Your task to perform on an android device: Clear all items from cart on amazon. Search for "bose soundsport free" on amazon, select the first entry, add it to the cart, then select checkout. Image 0: 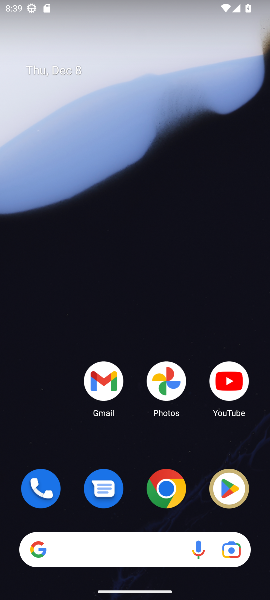
Step 0: drag from (130, 535) to (129, 70)
Your task to perform on an android device: Clear all items from cart on amazon. Search for "bose soundsport free" on amazon, select the first entry, add it to the cart, then select checkout. Image 1: 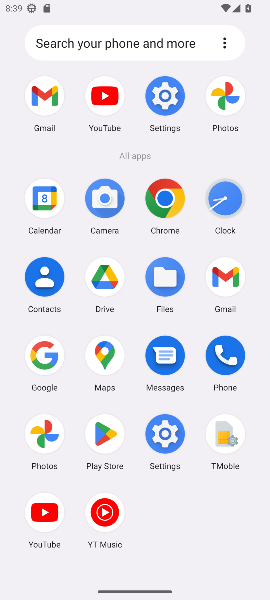
Step 1: click (46, 353)
Your task to perform on an android device: Clear all items from cart on amazon. Search for "bose soundsport free" on amazon, select the first entry, add it to the cart, then select checkout. Image 2: 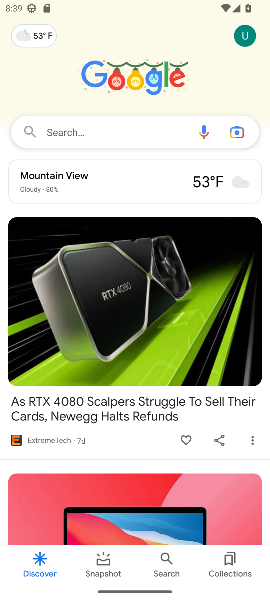
Step 2: click (61, 132)
Your task to perform on an android device: Clear all items from cart on amazon. Search for "bose soundsport free" on amazon, select the first entry, add it to the cart, then select checkout. Image 3: 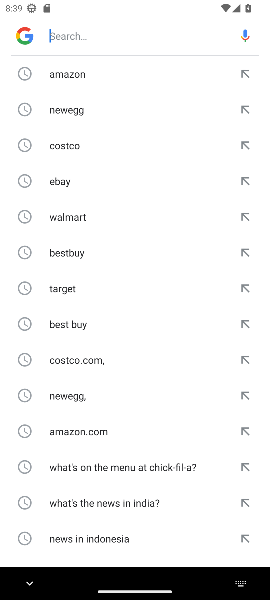
Step 3: click (70, 71)
Your task to perform on an android device: Clear all items from cart on amazon. Search for "bose soundsport free" on amazon, select the first entry, add it to the cart, then select checkout. Image 4: 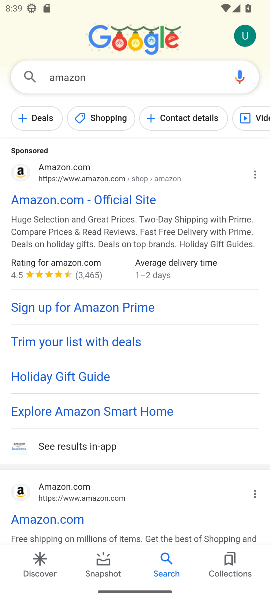
Step 4: click (56, 194)
Your task to perform on an android device: Clear all items from cart on amazon. Search for "bose soundsport free" on amazon, select the first entry, add it to the cart, then select checkout. Image 5: 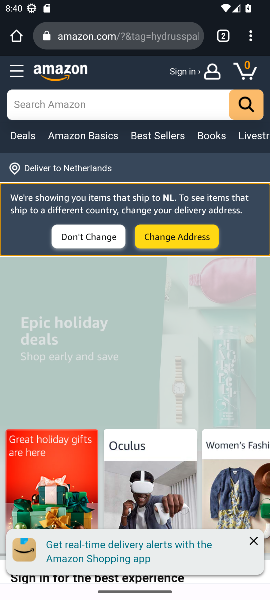
Step 5: click (85, 101)
Your task to perform on an android device: Clear all items from cart on amazon. Search for "bose soundsport free" on amazon, select the first entry, add it to the cart, then select checkout. Image 6: 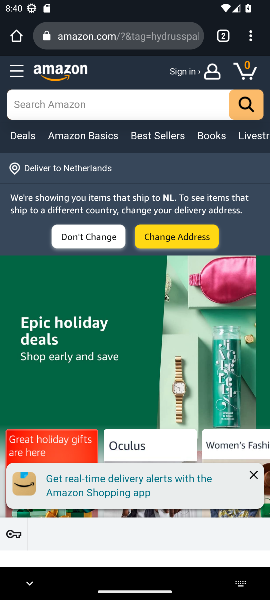
Step 6: type "bose soundsport free"
Your task to perform on an android device: Clear all items from cart on amazon. Search for "bose soundsport free" on amazon, select the first entry, add it to the cart, then select checkout. Image 7: 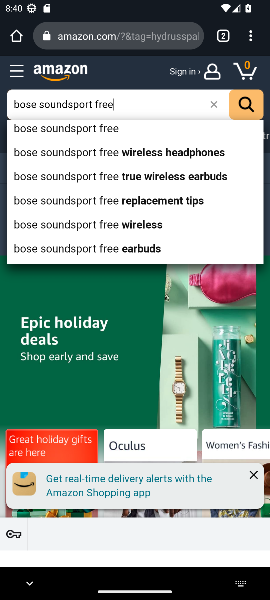
Step 7: click (79, 122)
Your task to perform on an android device: Clear all items from cart on amazon. Search for "bose soundsport free" on amazon, select the first entry, add it to the cart, then select checkout. Image 8: 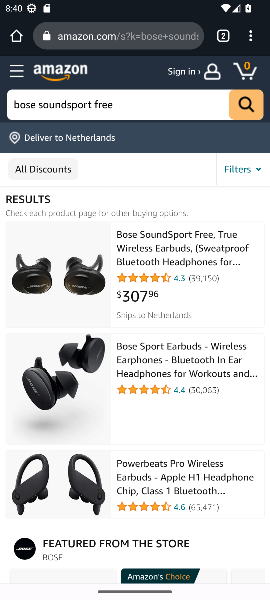
Step 8: click (148, 242)
Your task to perform on an android device: Clear all items from cart on amazon. Search for "bose soundsport free" on amazon, select the first entry, add it to the cart, then select checkout. Image 9: 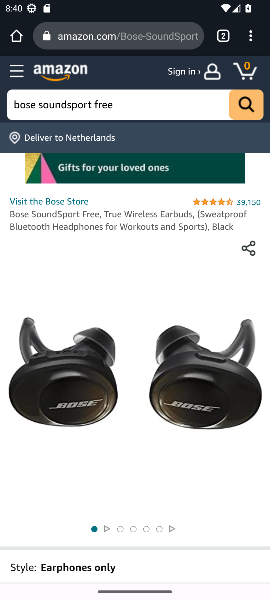
Step 9: drag from (137, 483) to (128, 171)
Your task to perform on an android device: Clear all items from cart on amazon. Search for "bose soundsport free" on amazon, select the first entry, add it to the cart, then select checkout. Image 10: 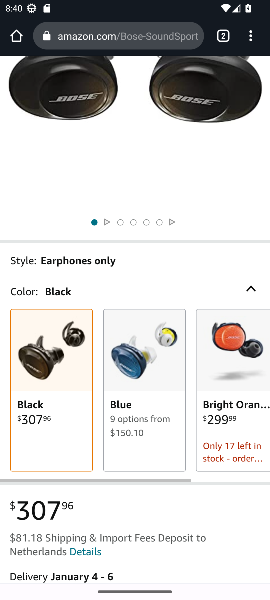
Step 10: drag from (147, 440) to (136, 196)
Your task to perform on an android device: Clear all items from cart on amazon. Search for "bose soundsport free" on amazon, select the first entry, add it to the cart, then select checkout. Image 11: 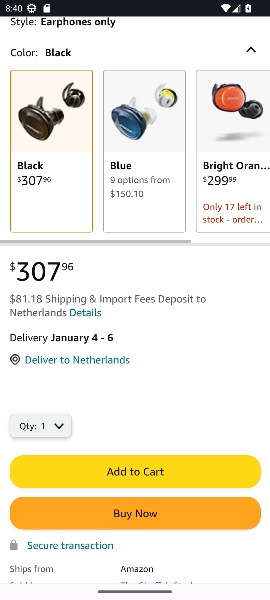
Step 11: click (152, 463)
Your task to perform on an android device: Clear all items from cart on amazon. Search for "bose soundsport free" on amazon, select the first entry, add it to the cart, then select checkout. Image 12: 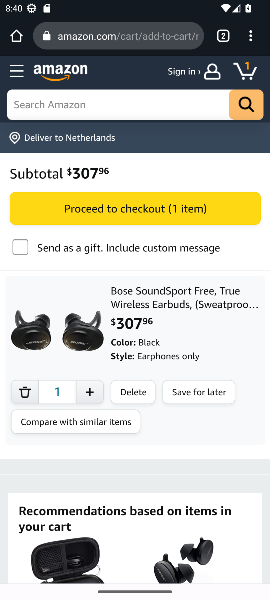
Step 12: click (142, 207)
Your task to perform on an android device: Clear all items from cart on amazon. Search for "bose soundsport free" on amazon, select the first entry, add it to the cart, then select checkout. Image 13: 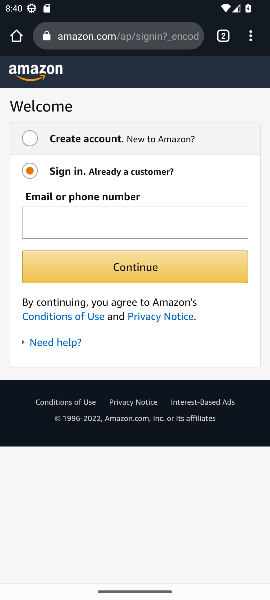
Step 13: task complete